Your task to perform on an android device: star an email in the gmail app Image 0: 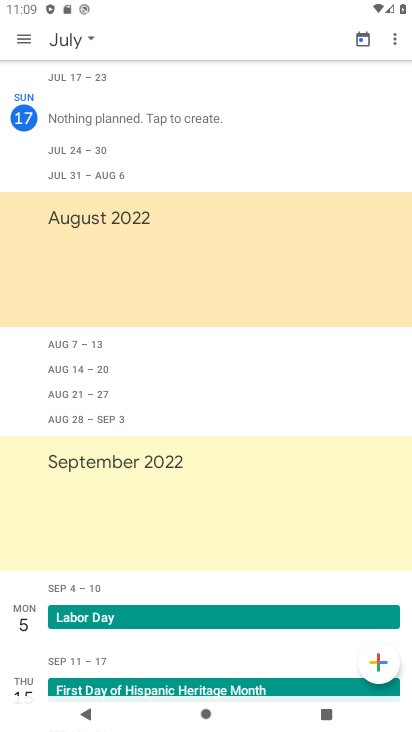
Step 0: press home button
Your task to perform on an android device: star an email in the gmail app Image 1: 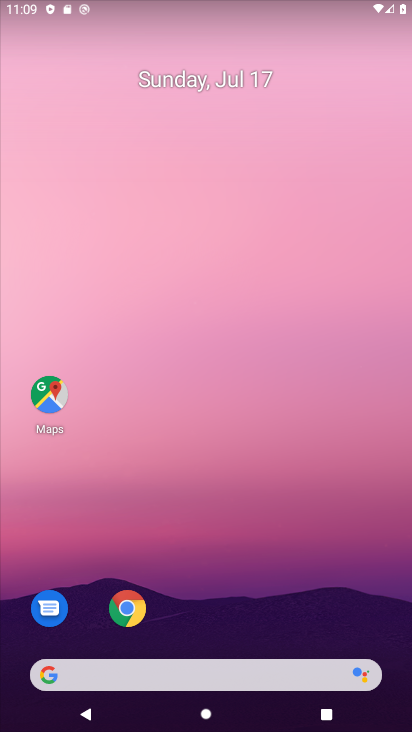
Step 1: drag from (214, 643) to (222, 153)
Your task to perform on an android device: star an email in the gmail app Image 2: 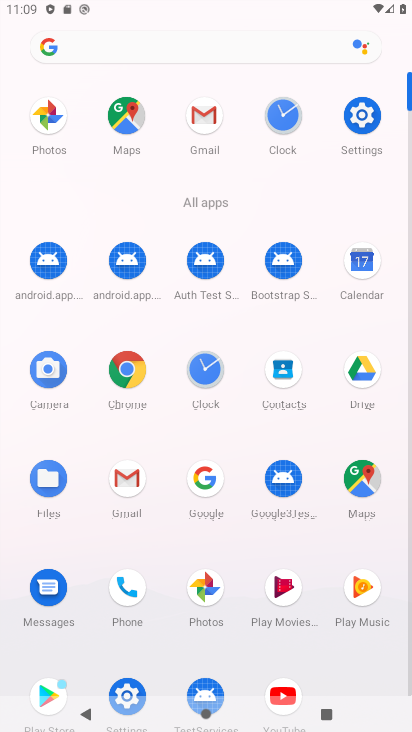
Step 2: click (126, 470)
Your task to perform on an android device: star an email in the gmail app Image 3: 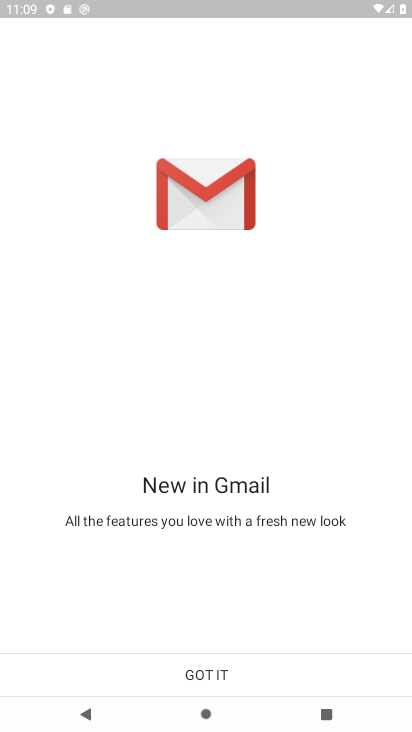
Step 3: click (223, 677)
Your task to perform on an android device: star an email in the gmail app Image 4: 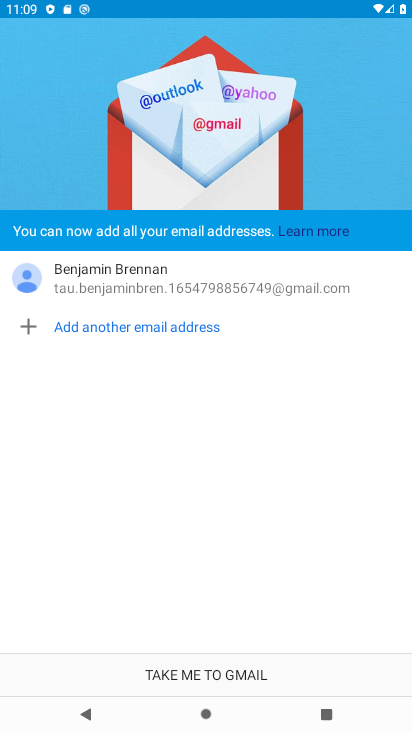
Step 4: click (205, 662)
Your task to perform on an android device: star an email in the gmail app Image 5: 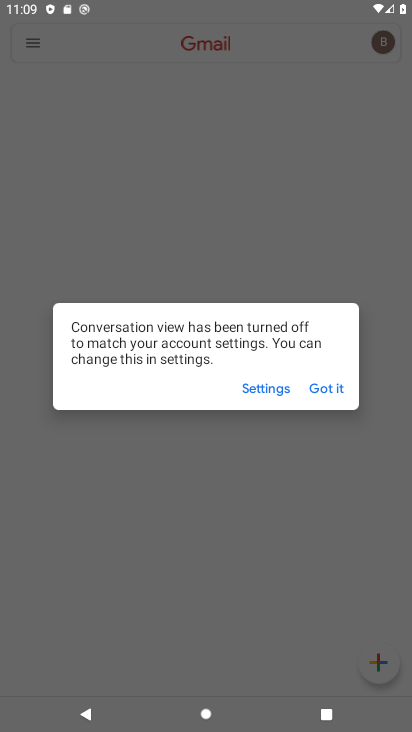
Step 5: click (325, 380)
Your task to perform on an android device: star an email in the gmail app Image 6: 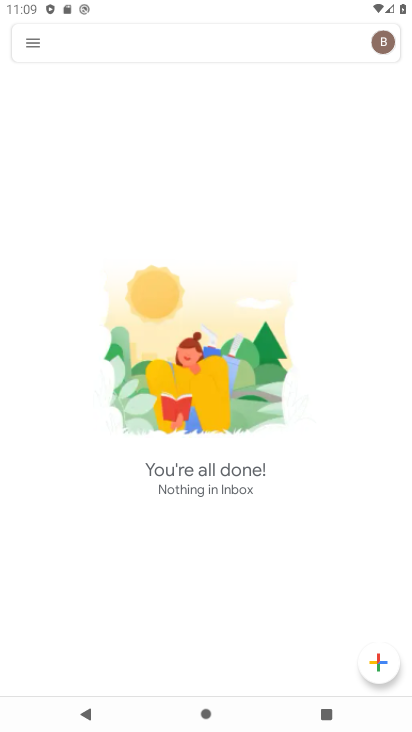
Step 6: task complete